Your task to perform on an android device: turn on javascript in the chrome app Image 0: 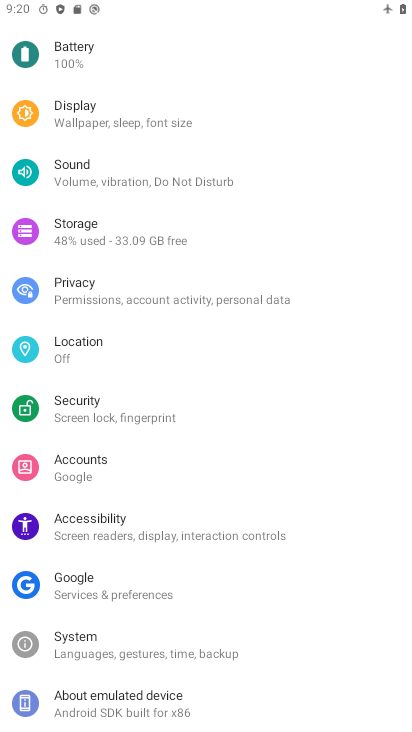
Step 0: press home button
Your task to perform on an android device: turn on javascript in the chrome app Image 1: 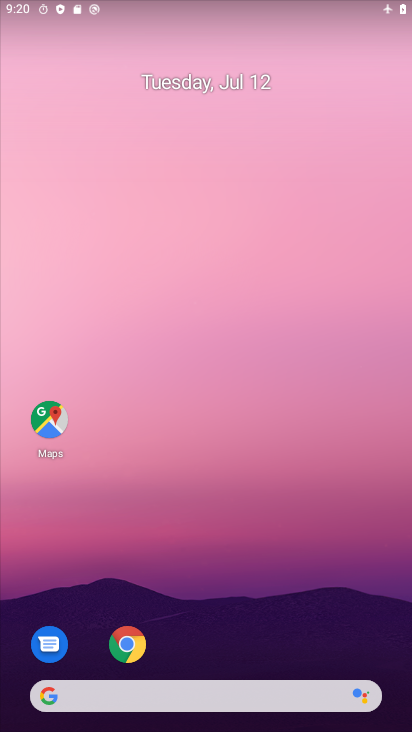
Step 1: click (145, 645)
Your task to perform on an android device: turn on javascript in the chrome app Image 2: 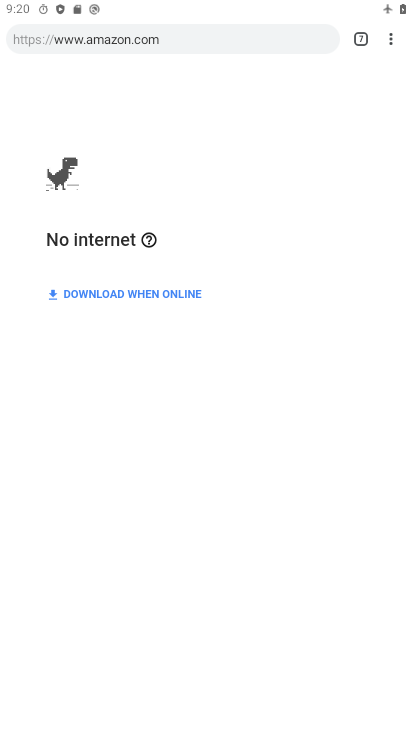
Step 2: click (389, 35)
Your task to perform on an android device: turn on javascript in the chrome app Image 3: 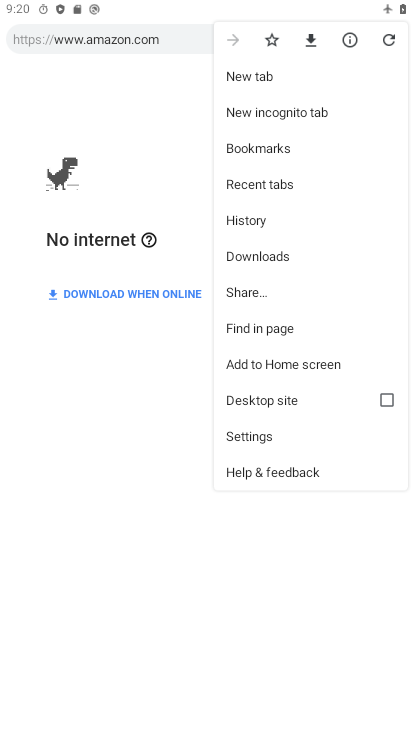
Step 3: click (273, 435)
Your task to perform on an android device: turn on javascript in the chrome app Image 4: 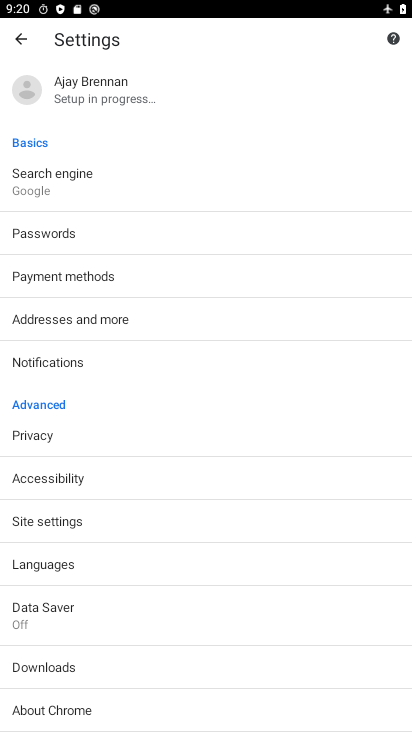
Step 4: click (100, 513)
Your task to perform on an android device: turn on javascript in the chrome app Image 5: 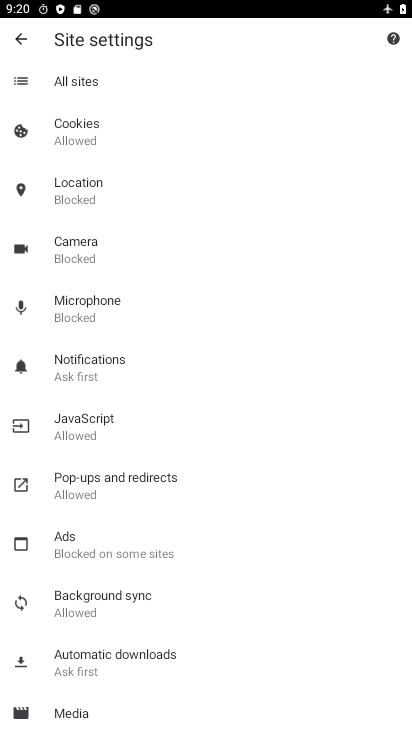
Step 5: click (117, 431)
Your task to perform on an android device: turn on javascript in the chrome app Image 6: 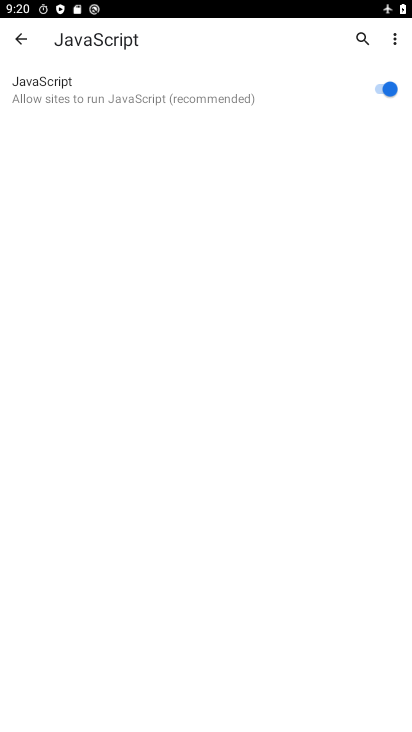
Step 6: task complete